Your task to perform on an android device: show emergency info Image 0: 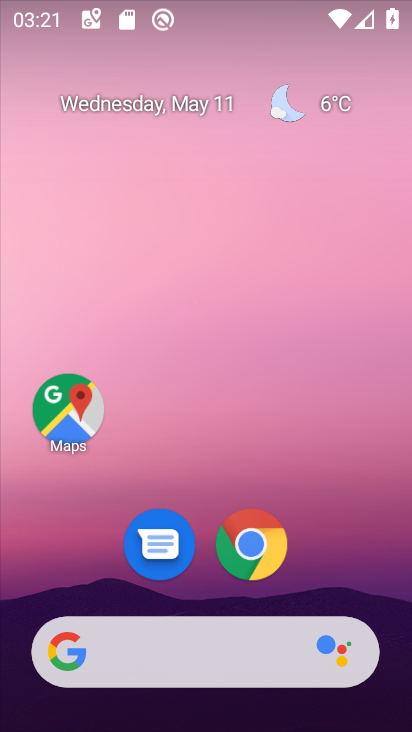
Step 0: drag from (332, 499) to (287, 80)
Your task to perform on an android device: show emergency info Image 1: 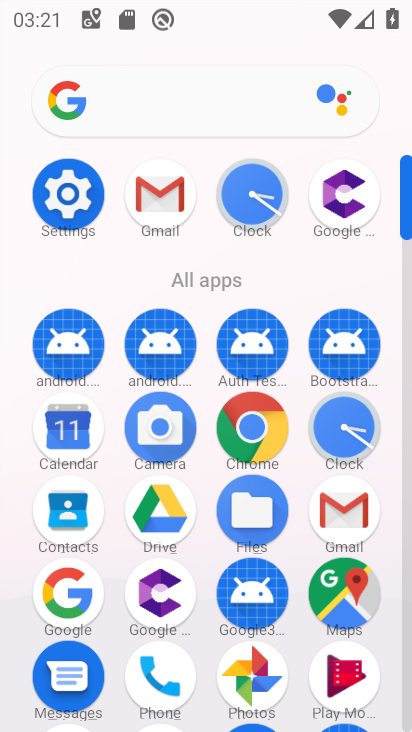
Step 1: click (58, 207)
Your task to perform on an android device: show emergency info Image 2: 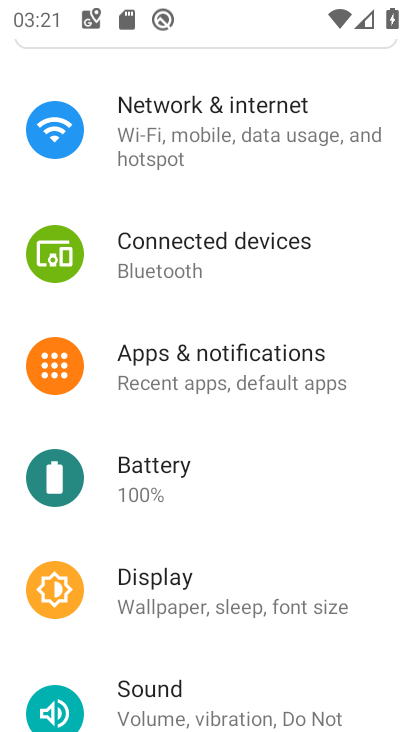
Step 2: drag from (266, 690) to (267, 269)
Your task to perform on an android device: show emergency info Image 3: 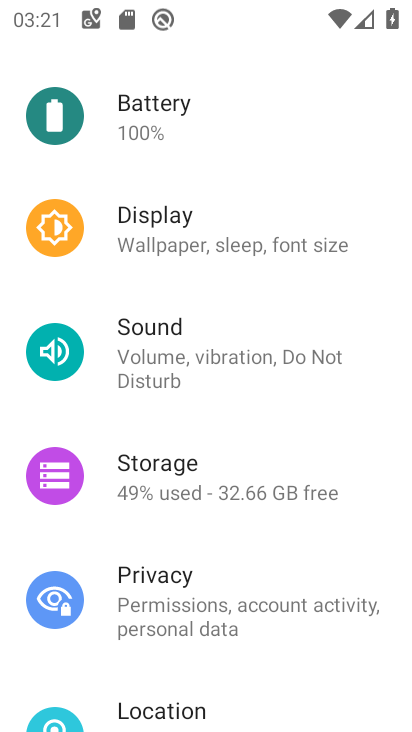
Step 3: drag from (289, 626) to (265, 293)
Your task to perform on an android device: show emergency info Image 4: 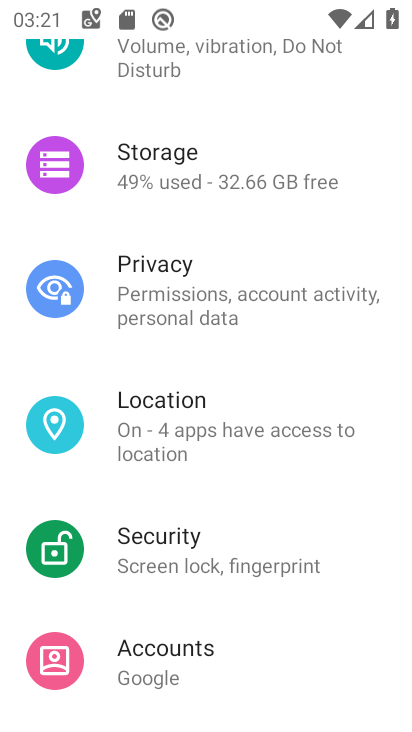
Step 4: drag from (270, 645) to (243, 274)
Your task to perform on an android device: show emergency info Image 5: 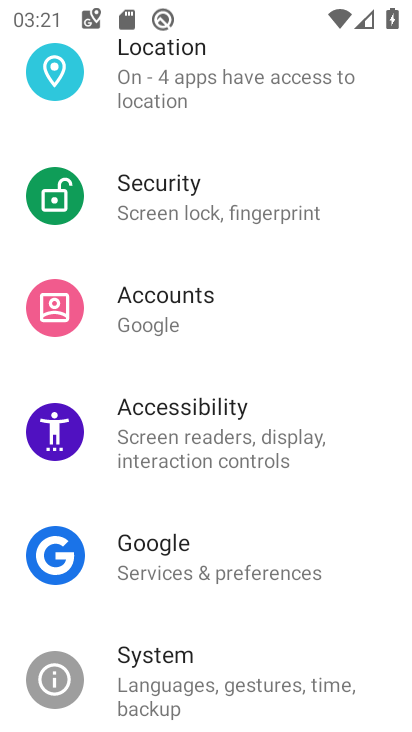
Step 5: drag from (203, 676) to (199, 270)
Your task to perform on an android device: show emergency info Image 6: 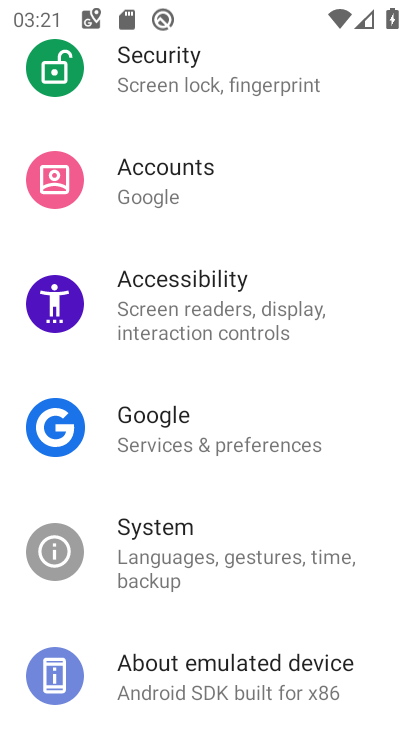
Step 6: click (164, 661)
Your task to perform on an android device: show emergency info Image 7: 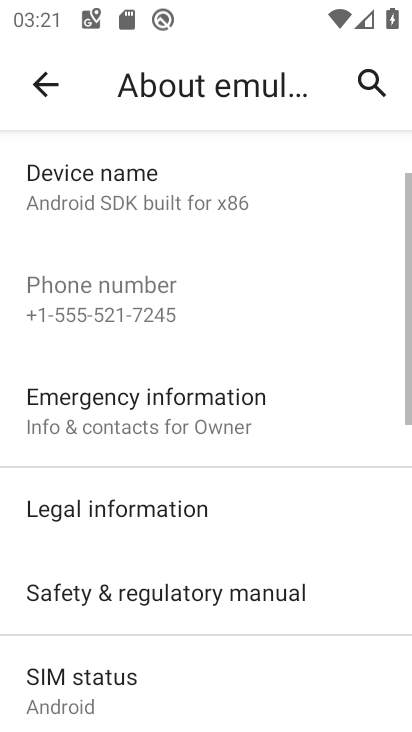
Step 7: drag from (164, 661) to (164, 178)
Your task to perform on an android device: show emergency info Image 8: 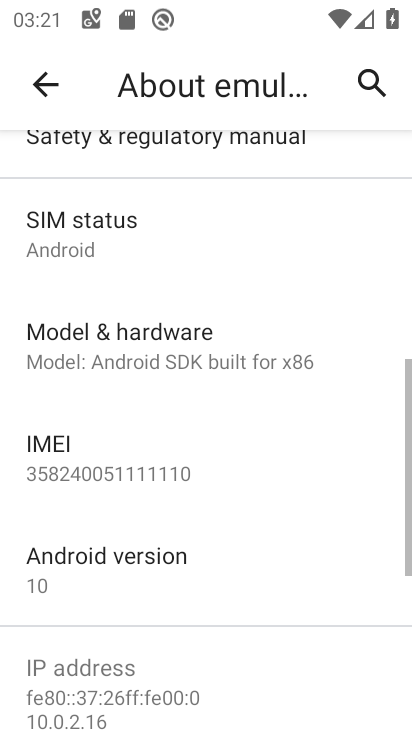
Step 8: drag from (218, 656) to (288, 709)
Your task to perform on an android device: show emergency info Image 9: 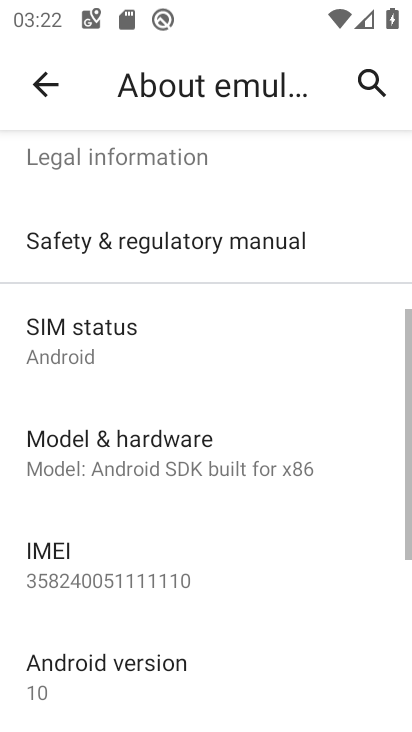
Step 9: drag from (261, 272) to (322, 726)
Your task to perform on an android device: show emergency info Image 10: 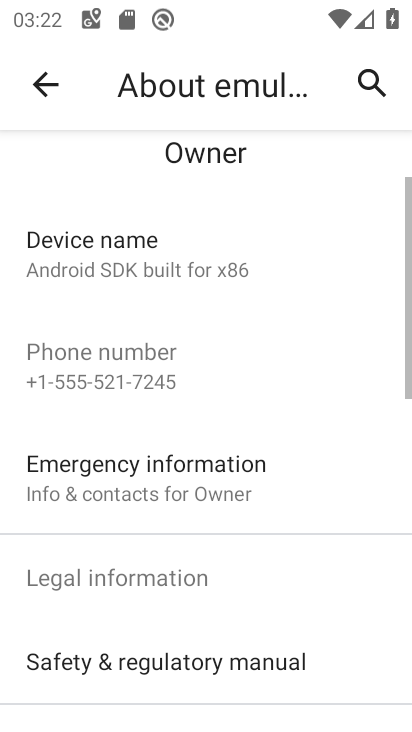
Step 10: click (203, 485)
Your task to perform on an android device: show emergency info Image 11: 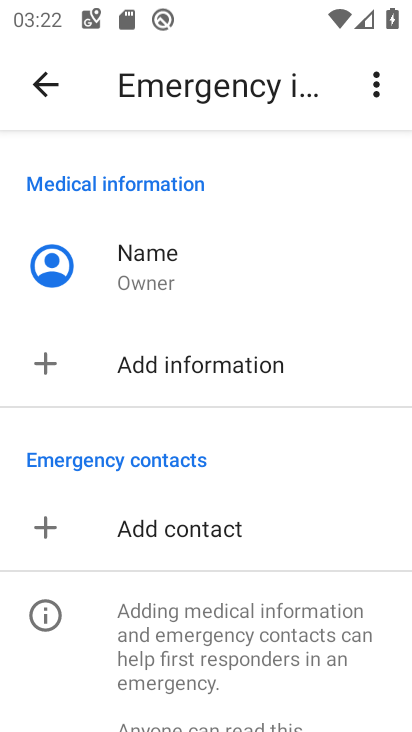
Step 11: task complete